Your task to perform on an android device: Open calendar and show me the fourth week of next month Image 0: 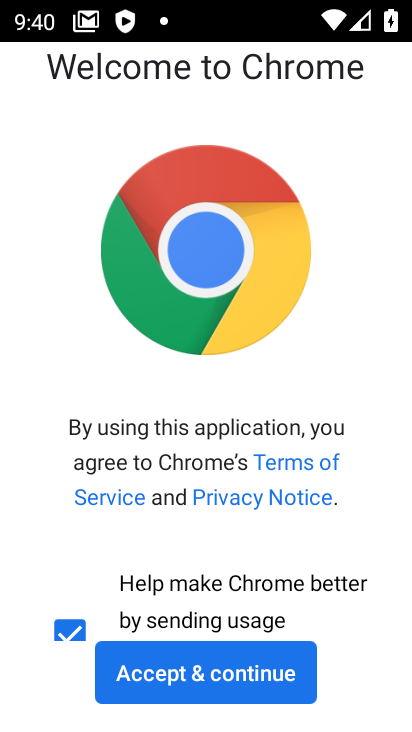
Step 0: click (233, 662)
Your task to perform on an android device: Open calendar and show me the fourth week of next month Image 1: 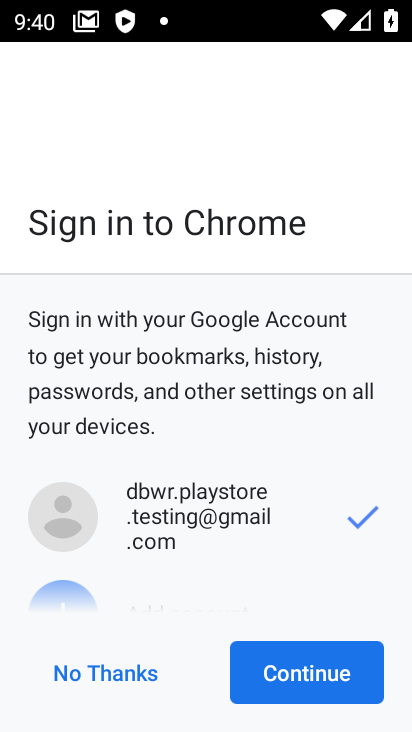
Step 1: click (240, 685)
Your task to perform on an android device: Open calendar and show me the fourth week of next month Image 2: 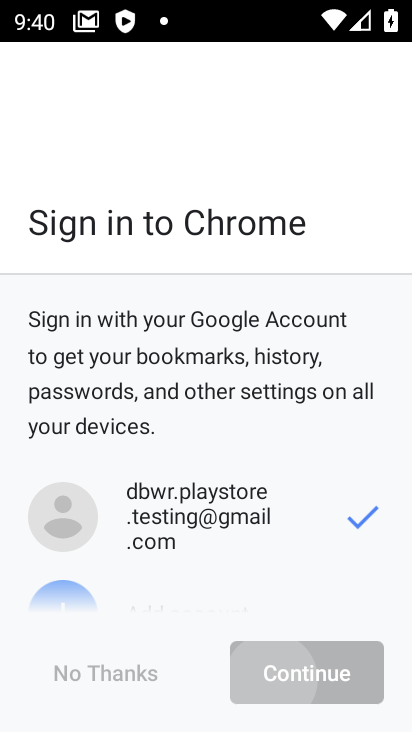
Step 2: click (265, 676)
Your task to perform on an android device: Open calendar and show me the fourth week of next month Image 3: 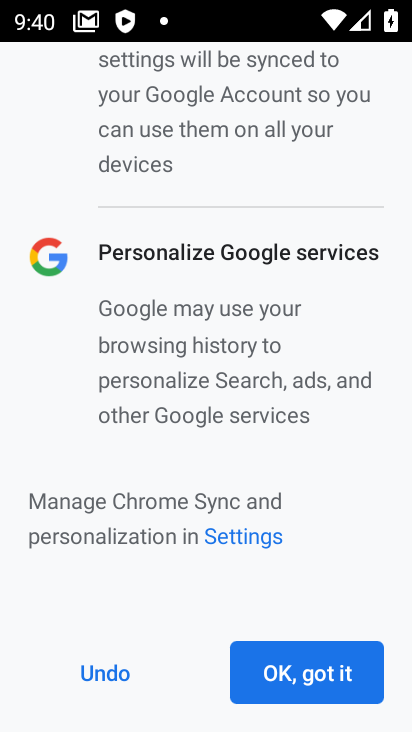
Step 3: click (310, 673)
Your task to perform on an android device: Open calendar and show me the fourth week of next month Image 4: 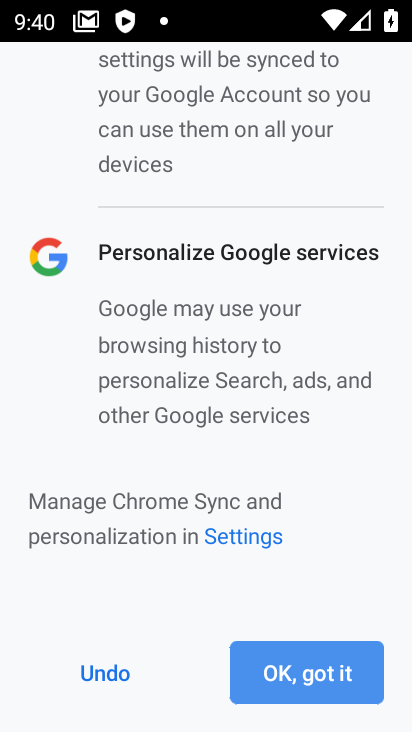
Step 4: click (310, 673)
Your task to perform on an android device: Open calendar and show me the fourth week of next month Image 5: 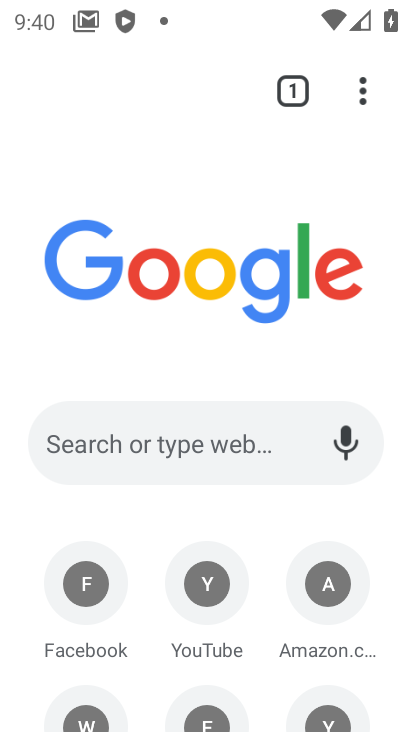
Step 5: press home button
Your task to perform on an android device: Open calendar and show me the fourth week of next month Image 6: 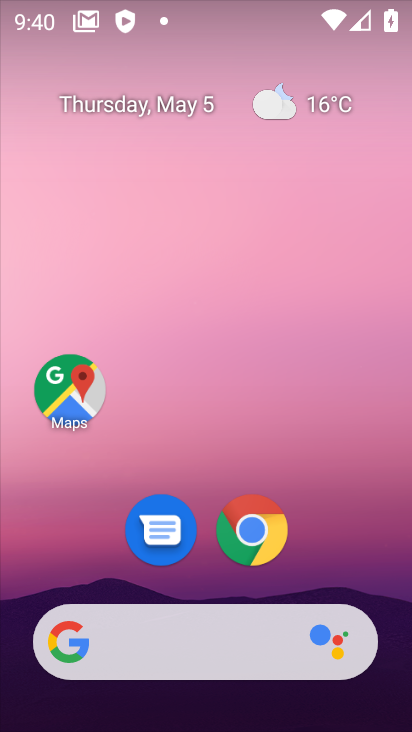
Step 6: drag from (349, 572) to (115, 6)
Your task to perform on an android device: Open calendar and show me the fourth week of next month Image 7: 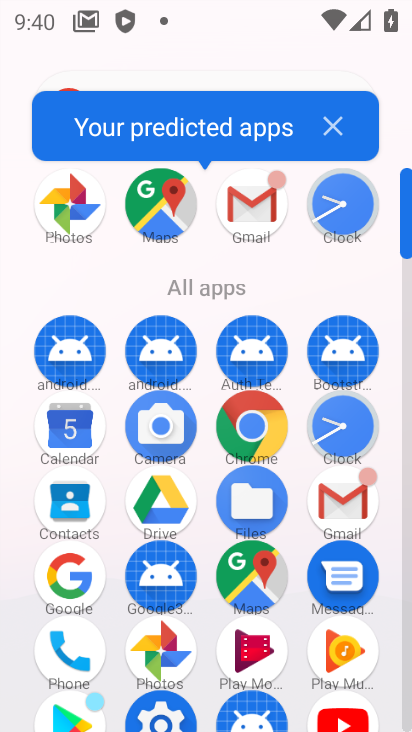
Step 7: click (64, 428)
Your task to perform on an android device: Open calendar and show me the fourth week of next month Image 8: 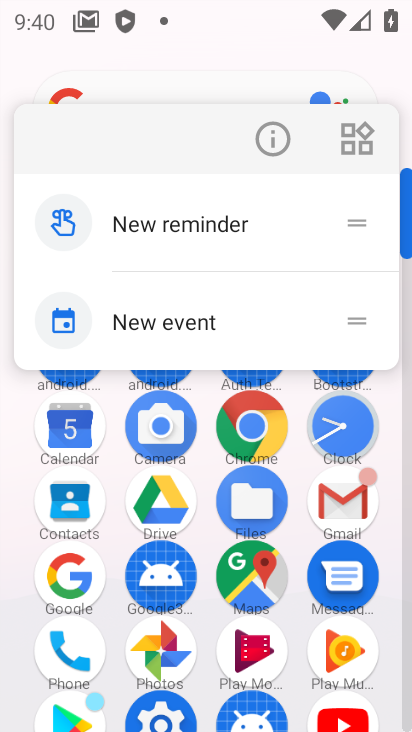
Step 8: click (64, 428)
Your task to perform on an android device: Open calendar and show me the fourth week of next month Image 9: 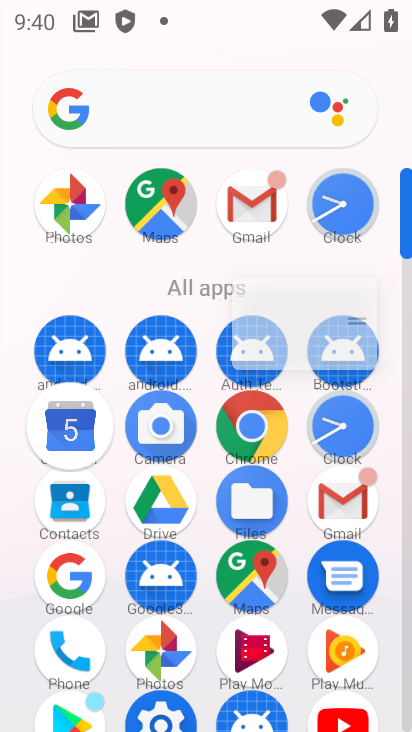
Step 9: click (63, 431)
Your task to perform on an android device: Open calendar and show me the fourth week of next month Image 10: 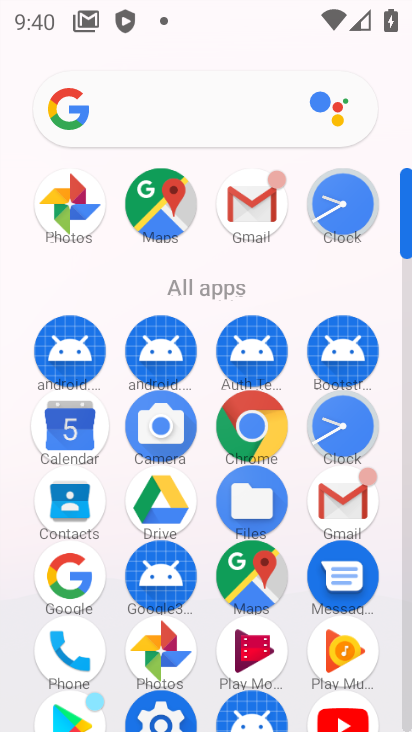
Step 10: click (63, 431)
Your task to perform on an android device: Open calendar and show me the fourth week of next month Image 11: 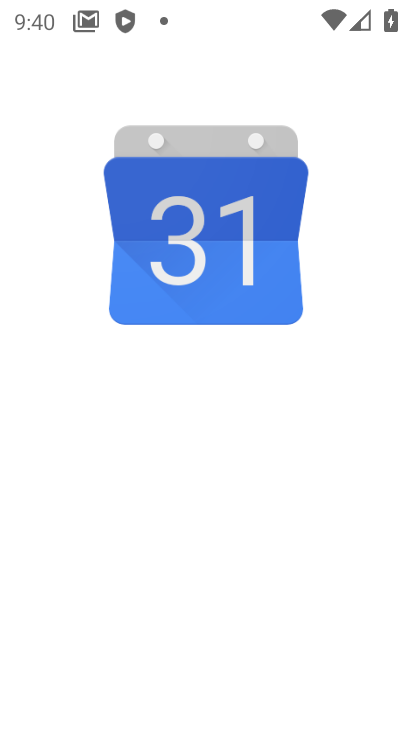
Step 11: click (65, 424)
Your task to perform on an android device: Open calendar and show me the fourth week of next month Image 12: 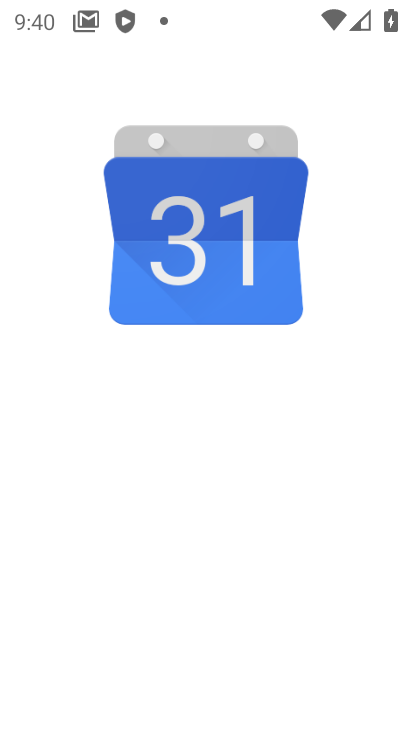
Step 12: click (67, 423)
Your task to perform on an android device: Open calendar and show me the fourth week of next month Image 13: 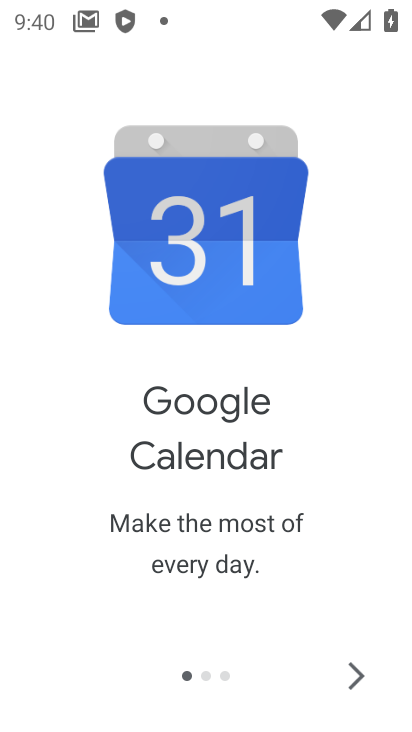
Step 13: click (352, 673)
Your task to perform on an android device: Open calendar and show me the fourth week of next month Image 14: 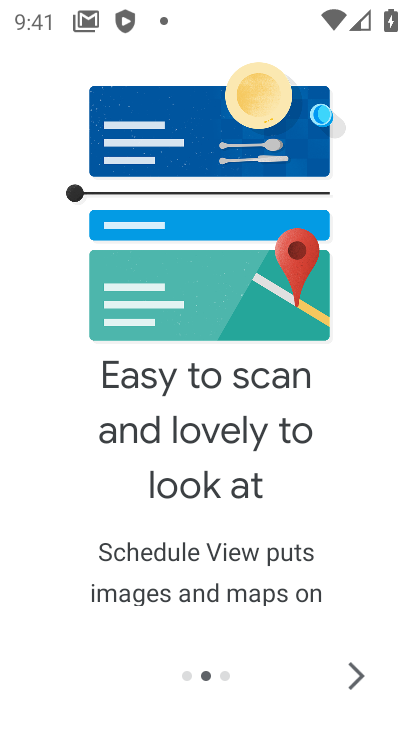
Step 14: click (352, 673)
Your task to perform on an android device: Open calendar and show me the fourth week of next month Image 15: 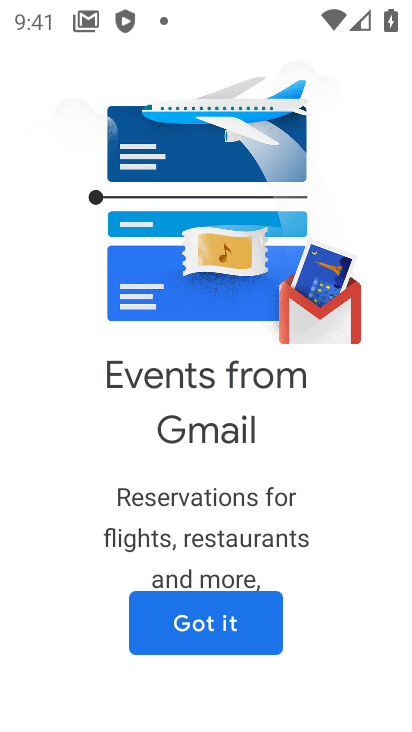
Step 15: click (225, 620)
Your task to perform on an android device: Open calendar and show me the fourth week of next month Image 16: 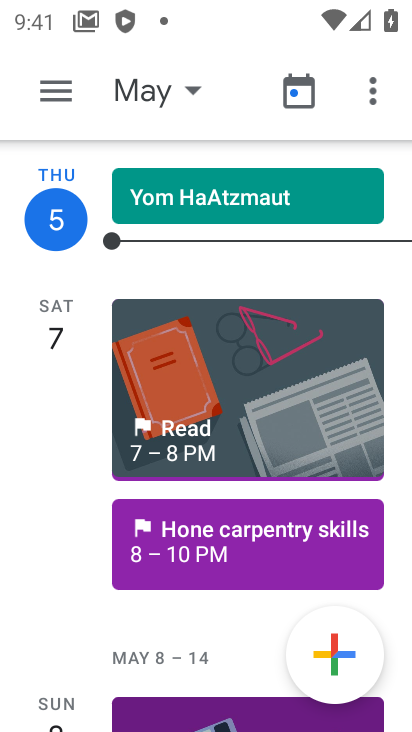
Step 16: click (195, 82)
Your task to perform on an android device: Open calendar and show me the fourth week of next month Image 17: 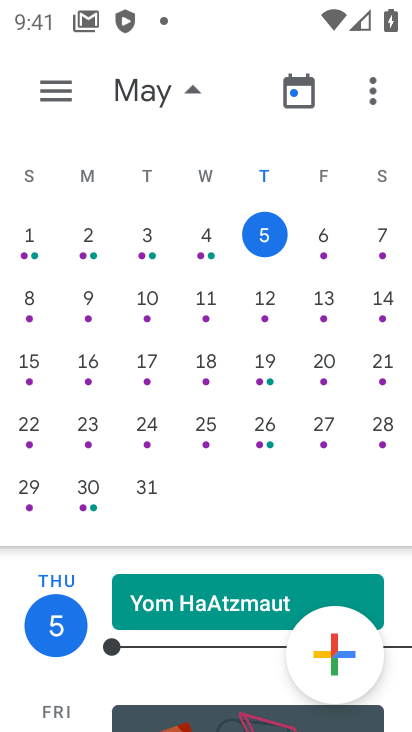
Step 17: drag from (319, 359) to (25, 331)
Your task to perform on an android device: Open calendar and show me the fourth week of next month Image 18: 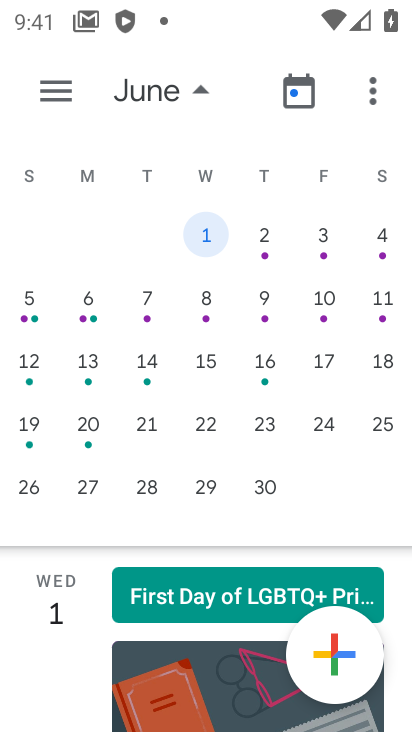
Step 18: click (206, 424)
Your task to perform on an android device: Open calendar and show me the fourth week of next month Image 19: 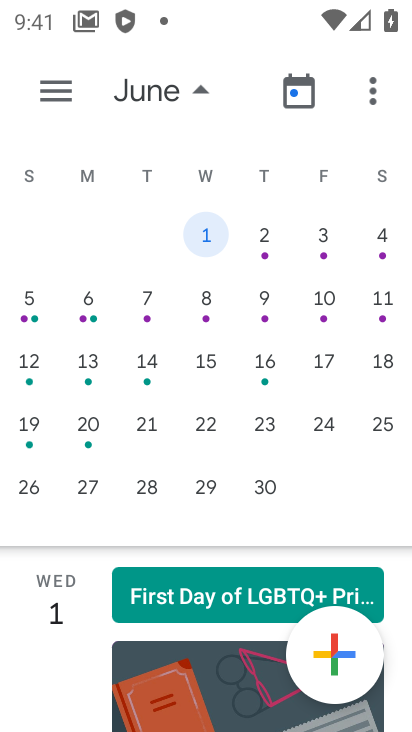
Step 19: click (201, 422)
Your task to perform on an android device: Open calendar and show me the fourth week of next month Image 20: 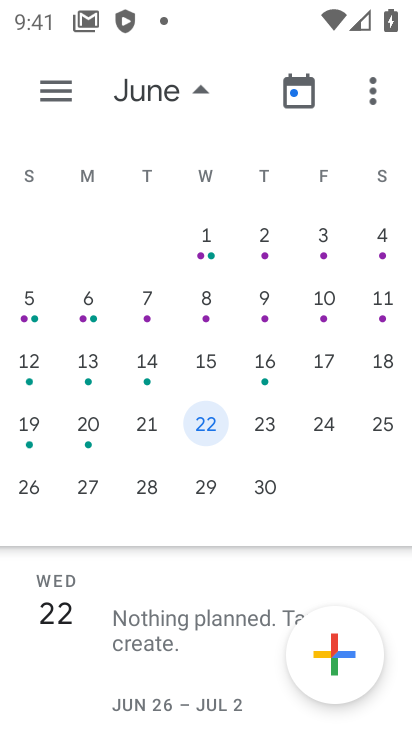
Step 20: click (204, 420)
Your task to perform on an android device: Open calendar and show me the fourth week of next month Image 21: 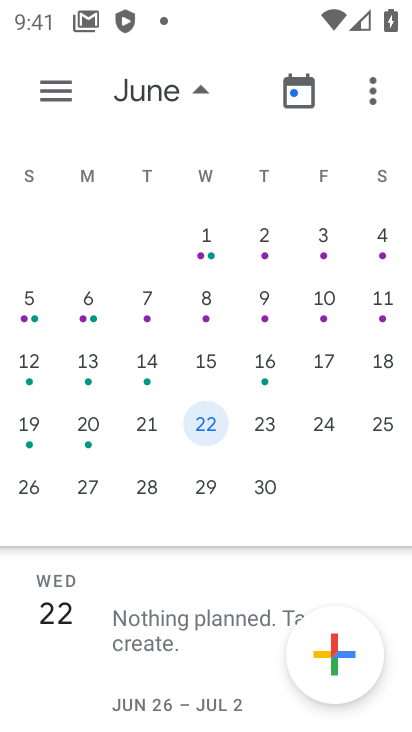
Step 21: task complete